Your task to perform on an android device: Open calendar and show me the fourth week of next month Image 0: 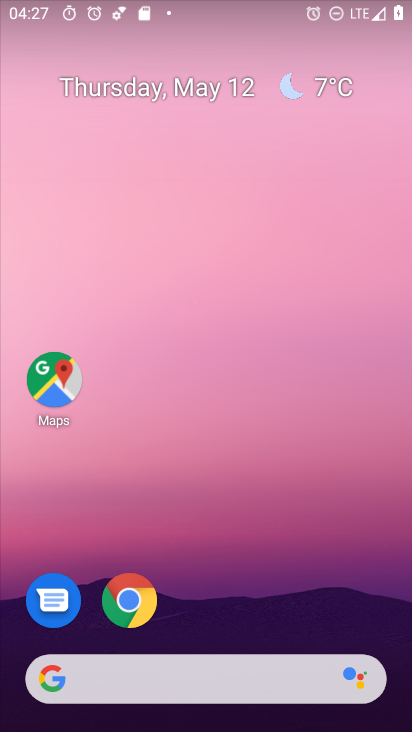
Step 0: drag from (229, 716) to (244, 242)
Your task to perform on an android device: Open calendar and show me the fourth week of next month Image 1: 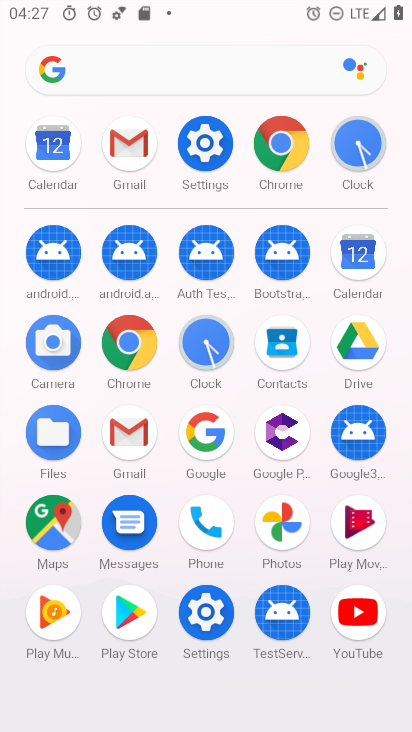
Step 1: click (354, 254)
Your task to perform on an android device: Open calendar and show me the fourth week of next month Image 2: 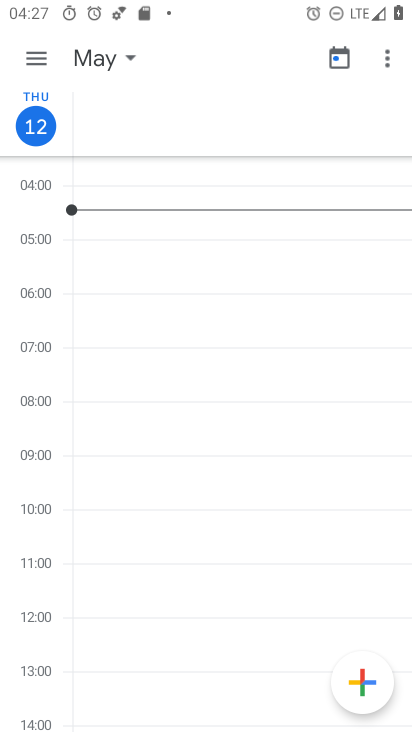
Step 2: click (97, 59)
Your task to perform on an android device: Open calendar and show me the fourth week of next month Image 3: 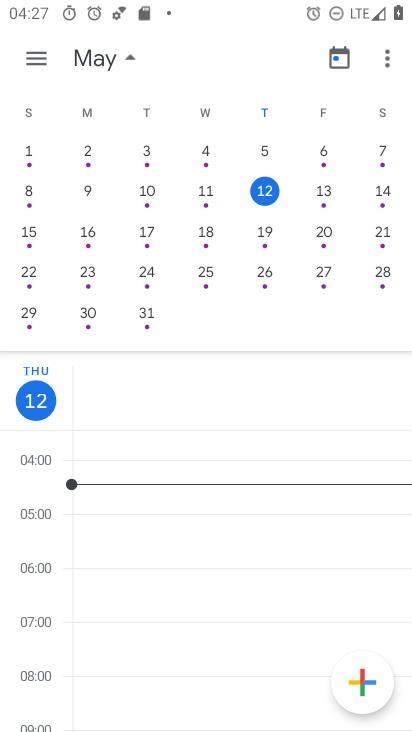
Step 3: drag from (371, 216) to (3, 247)
Your task to perform on an android device: Open calendar and show me the fourth week of next month Image 4: 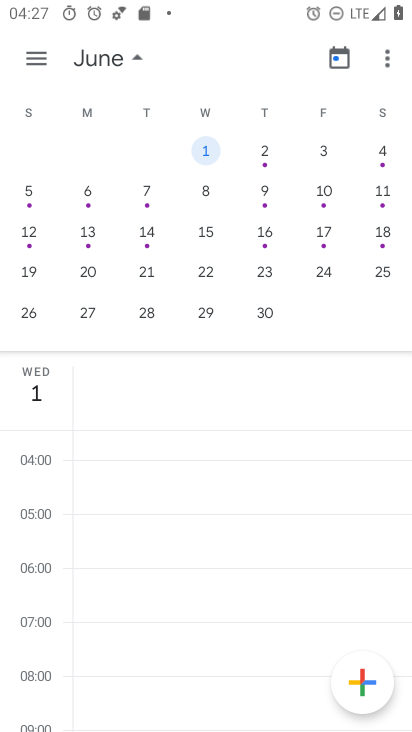
Step 4: click (84, 310)
Your task to perform on an android device: Open calendar and show me the fourth week of next month Image 5: 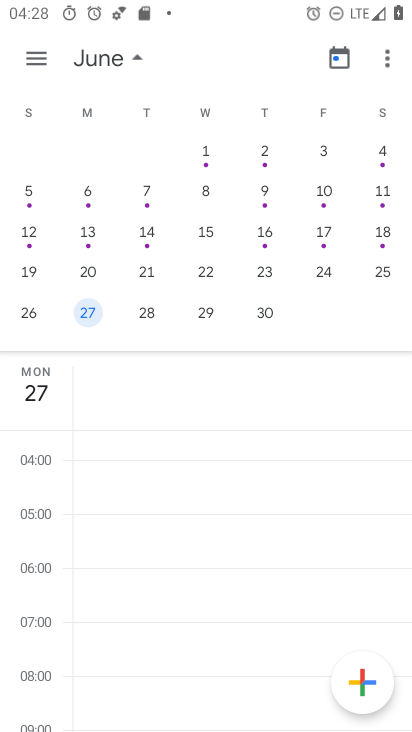
Step 5: click (35, 55)
Your task to perform on an android device: Open calendar and show me the fourth week of next month Image 6: 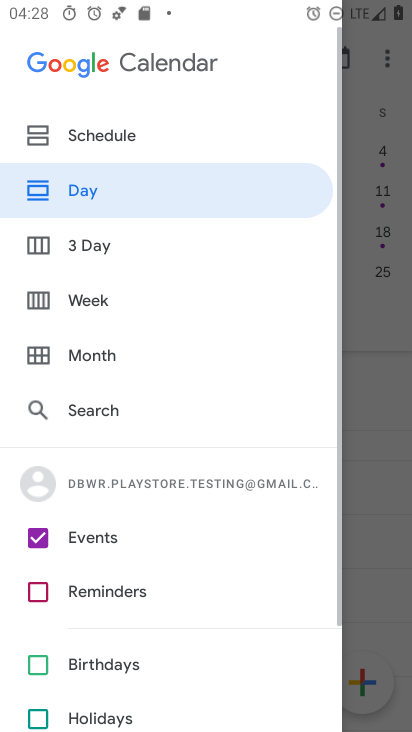
Step 6: click (95, 300)
Your task to perform on an android device: Open calendar and show me the fourth week of next month Image 7: 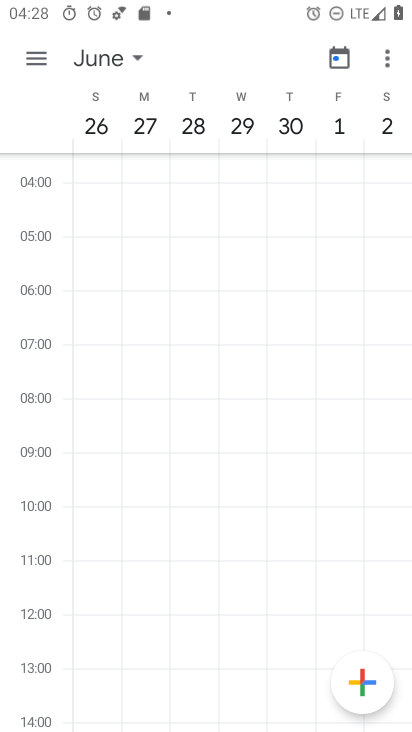
Step 7: task complete